Your task to perform on an android device: set the timer Image 0: 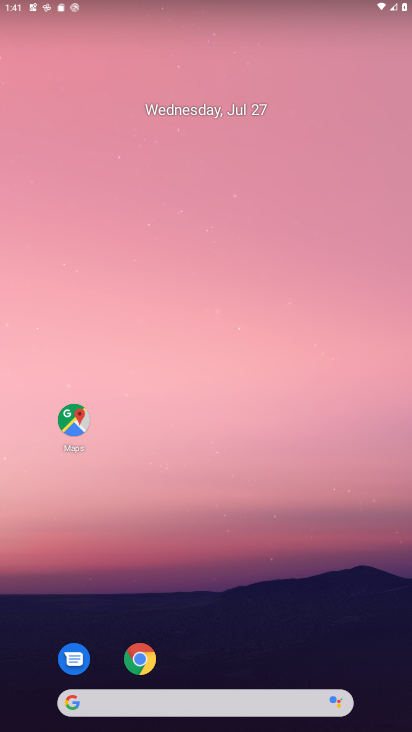
Step 0: drag from (45, 570) to (219, 136)
Your task to perform on an android device: set the timer Image 1: 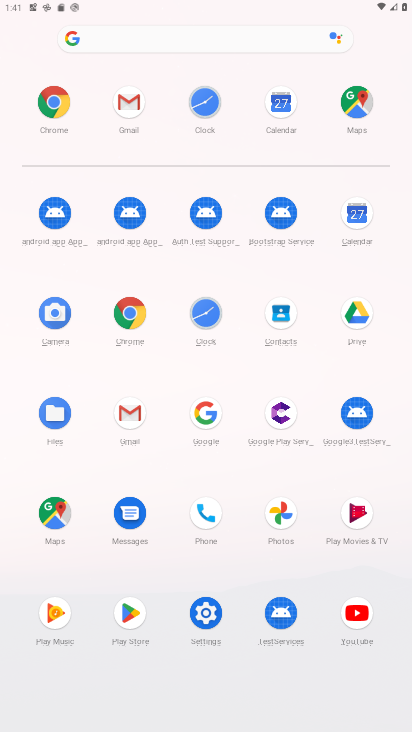
Step 1: click (203, 318)
Your task to perform on an android device: set the timer Image 2: 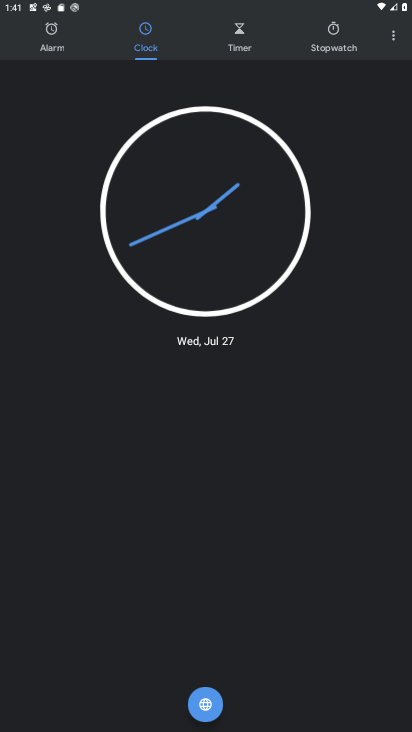
Step 2: click (249, 44)
Your task to perform on an android device: set the timer Image 3: 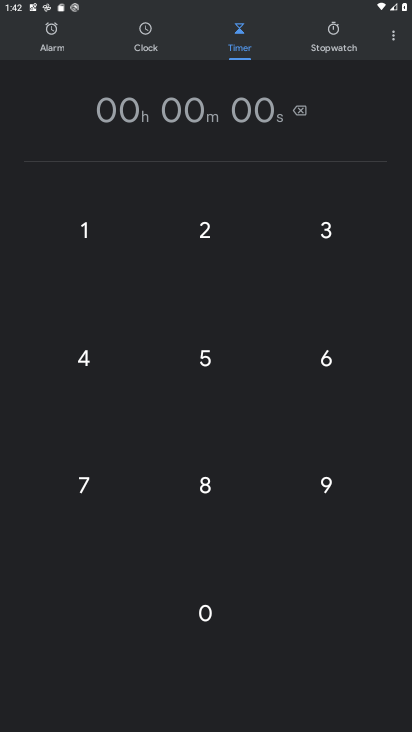
Step 3: click (94, 231)
Your task to perform on an android device: set the timer Image 4: 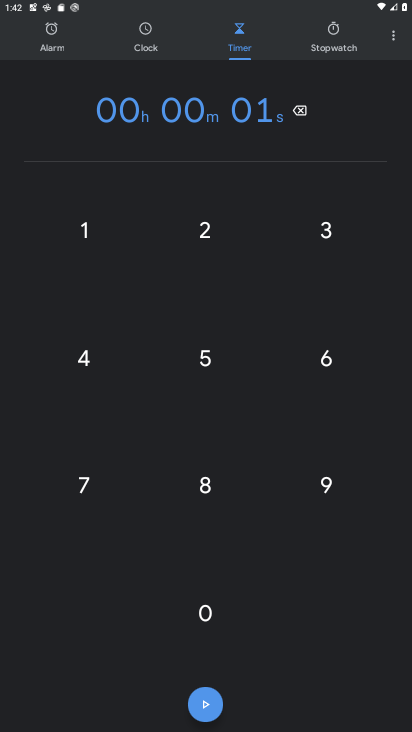
Step 4: click (199, 608)
Your task to perform on an android device: set the timer Image 5: 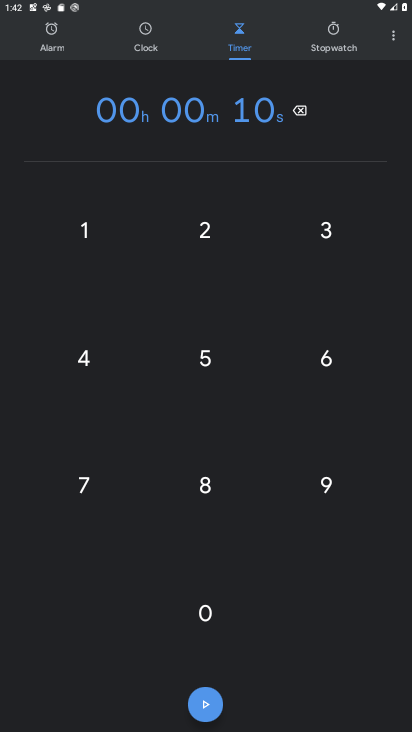
Step 5: click (199, 608)
Your task to perform on an android device: set the timer Image 6: 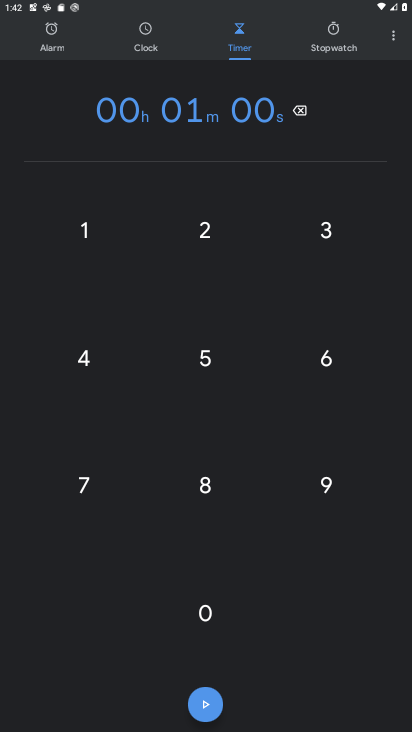
Step 6: click (199, 606)
Your task to perform on an android device: set the timer Image 7: 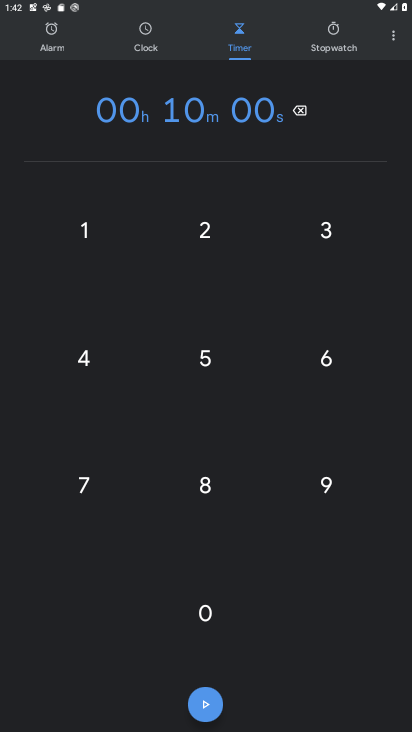
Step 7: click (199, 606)
Your task to perform on an android device: set the timer Image 8: 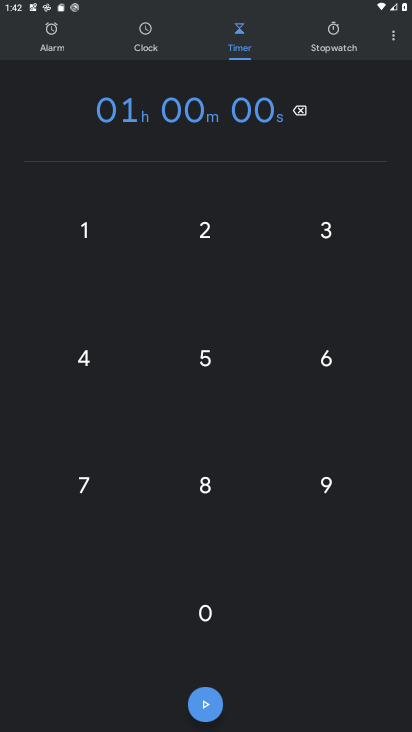
Step 8: click (199, 606)
Your task to perform on an android device: set the timer Image 9: 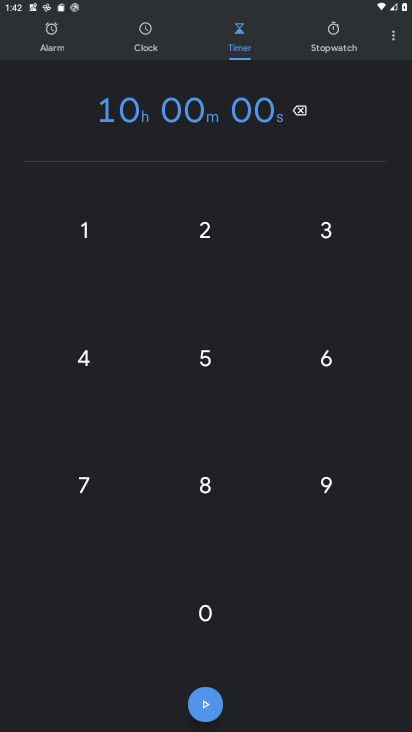
Step 9: click (208, 703)
Your task to perform on an android device: set the timer Image 10: 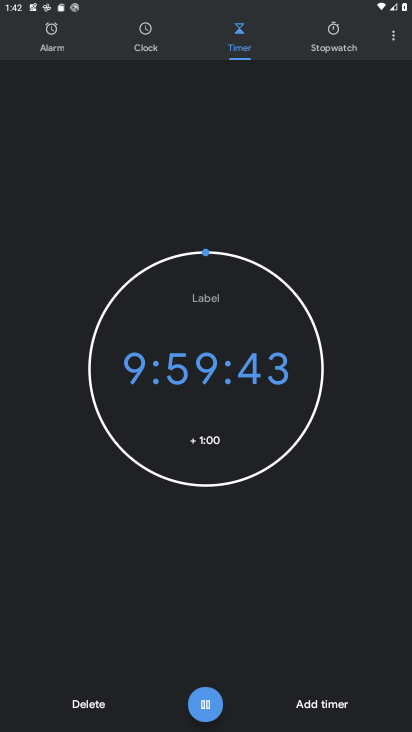
Step 10: task complete